Your task to perform on an android device: Open Google Chrome Image 0: 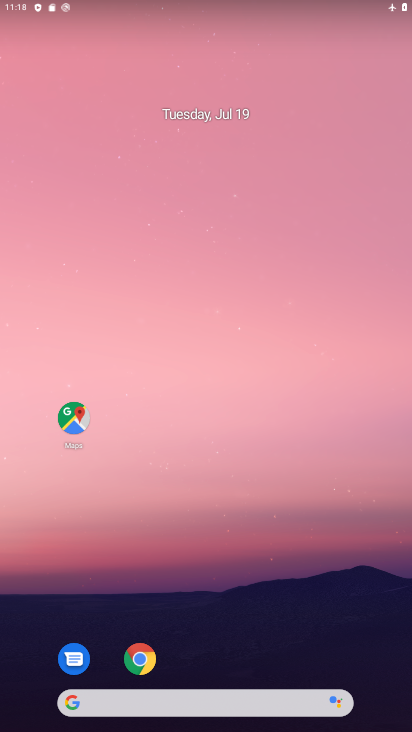
Step 0: click (154, 666)
Your task to perform on an android device: Open Google Chrome Image 1: 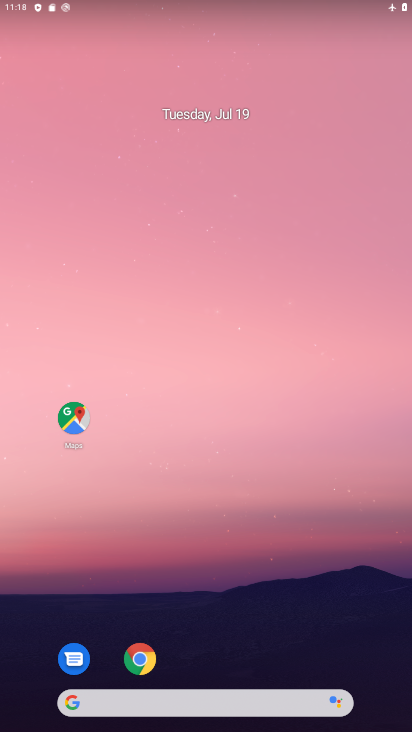
Step 1: click (154, 666)
Your task to perform on an android device: Open Google Chrome Image 2: 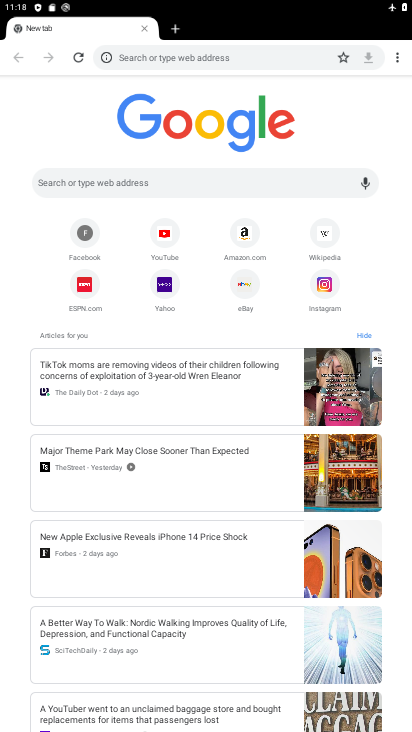
Step 2: click (313, 14)
Your task to perform on an android device: Open Google Chrome Image 3: 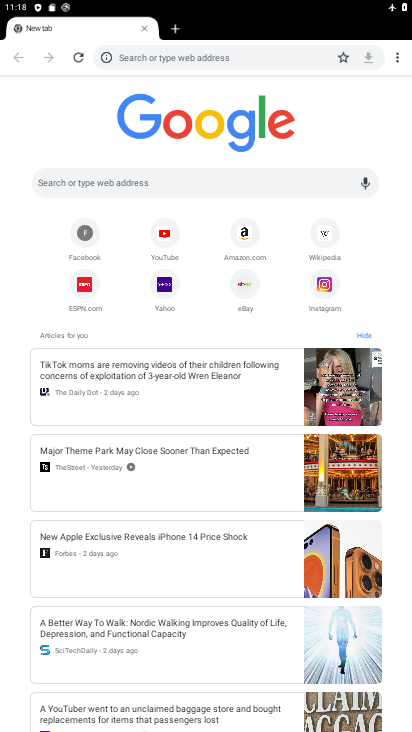
Step 3: task complete